Your task to perform on an android device: change notification settings in the gmail app Image 0: 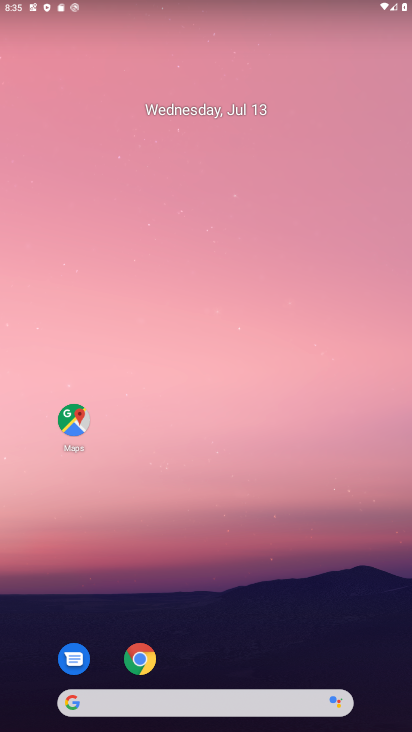
Step 0: task complete